Your task to perform on an android device: change the clock display to analog Image 0: 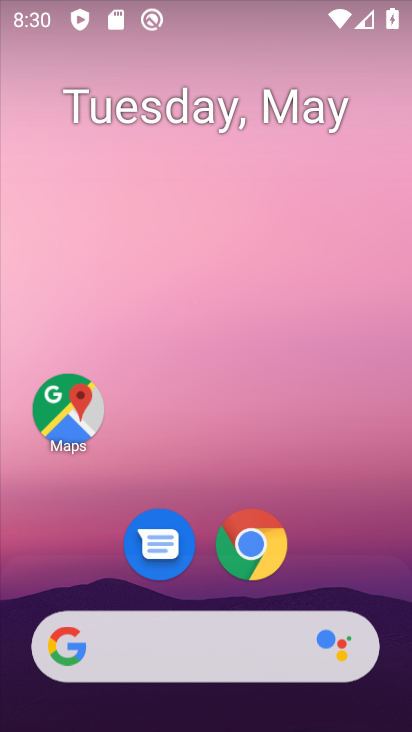
Step 0: drag from (341, 483) to (306, 178)
Your task to perform on an android device: change the clock display to analog Image 1: 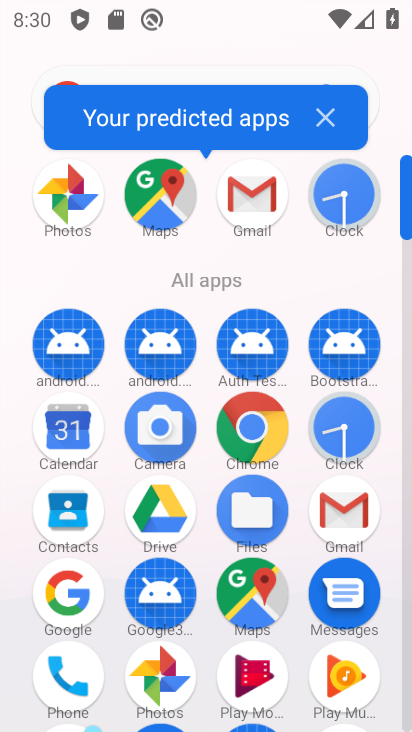
Step 1: click (332, 443)
Your task to perform on an android device: change the clock display to analog Image 2: 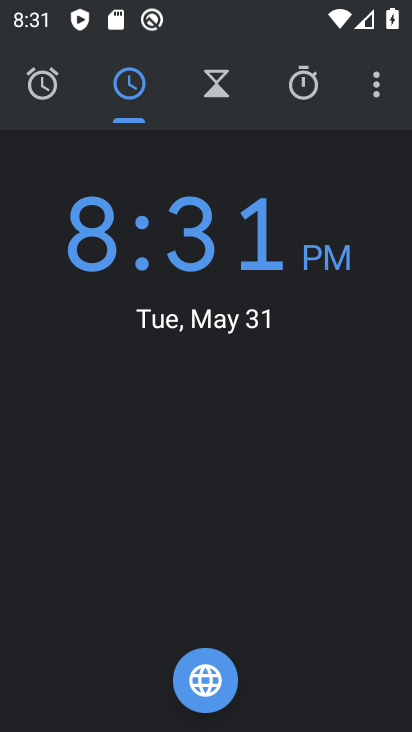
Step 2: click (382, 90)
Your task to perform on an android device: change the clock display to analog Image 3: 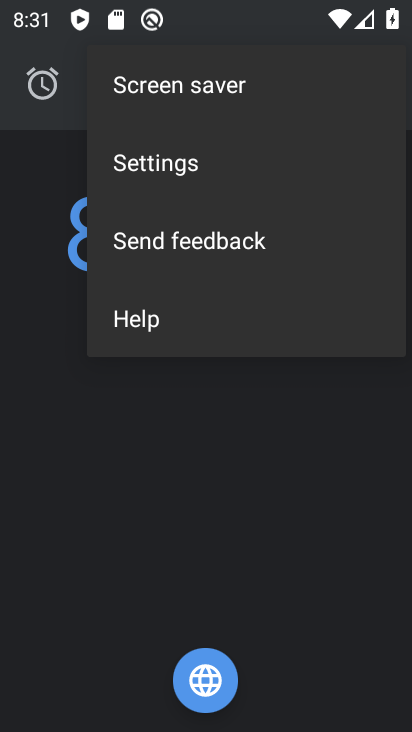
Step 3: click (183, 161)
Your task to perform on an android device: change the clock display to analog Image 4: 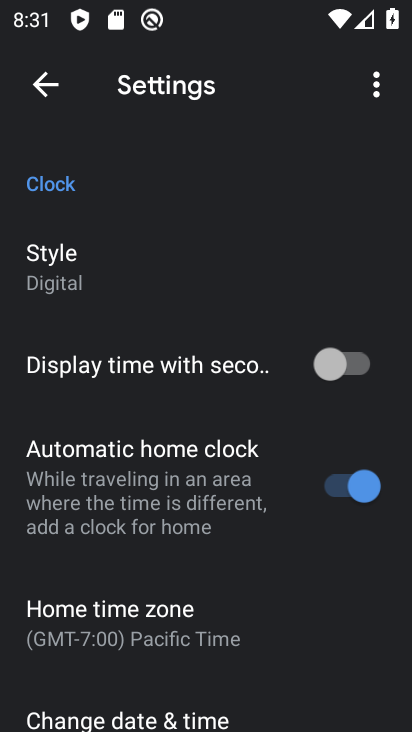
Step 4: click (109, 276)
Your task to perform on an android device: change the clock display to analog Image 5: 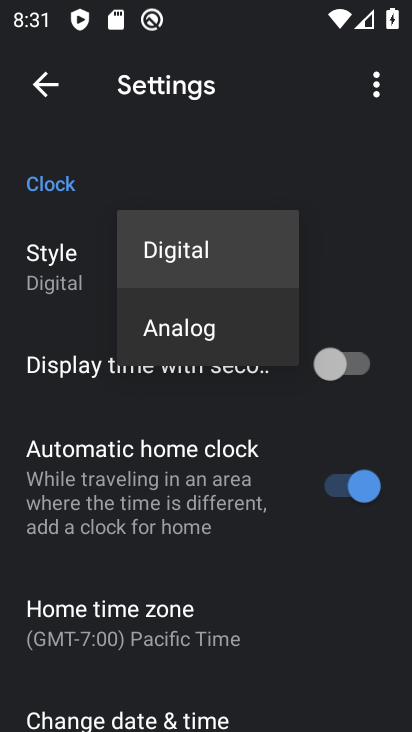
Step 5: click (163, 332)
Your task to perform on an android device: change the clock display to analog Image 6: 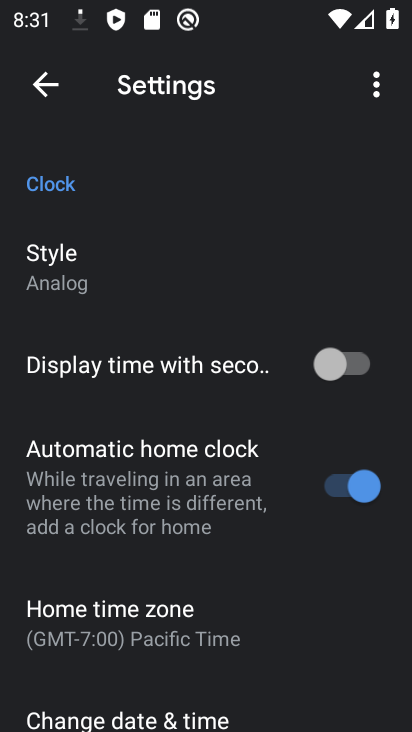
Step 6: task complete